Your task to perform on an android device: change the clock display to show seconds Image 0: 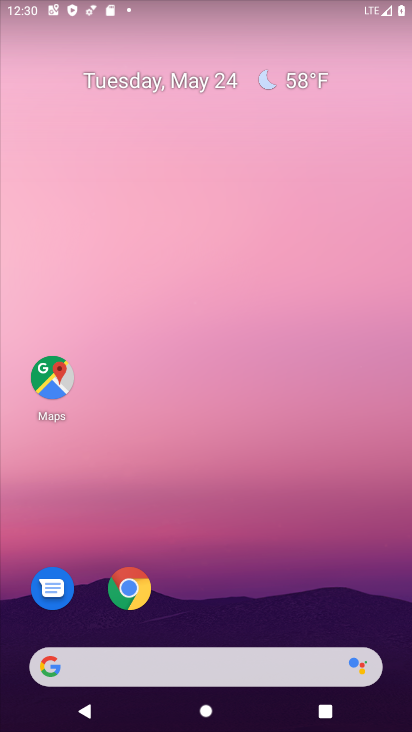
Step 0: drag from (233, 607) to (194, 35)
Your task to perform on an android device: change the clock display to show seconds Image 1: 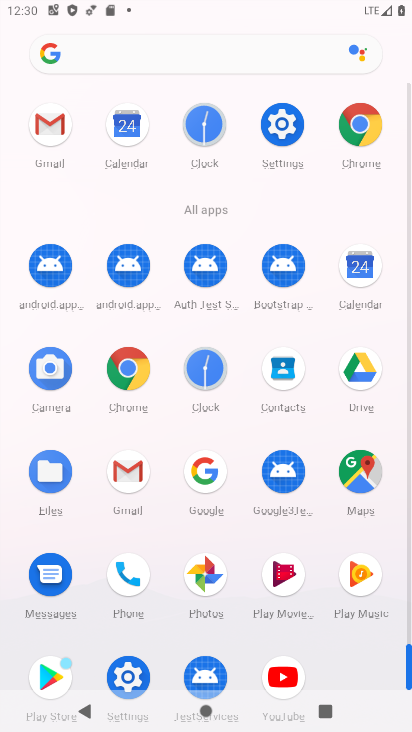
Step 1: click (198, 375)
Your task to perform on an android device: change the clock display to show seconds Image 2: 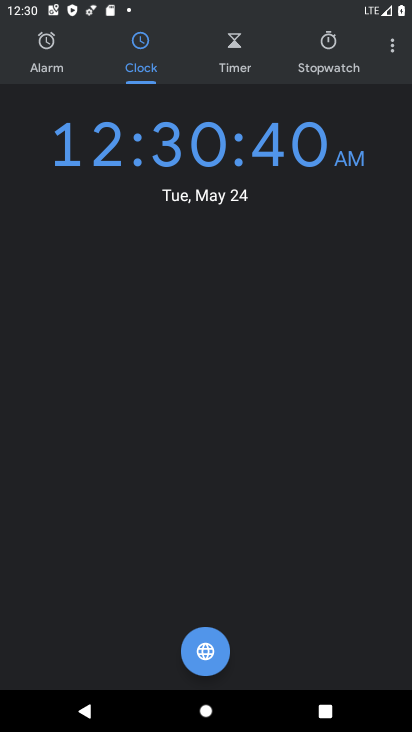
Step 2: click (397, 54)
Your task to perform on an android device: change the clock display to show seconds Image 3: 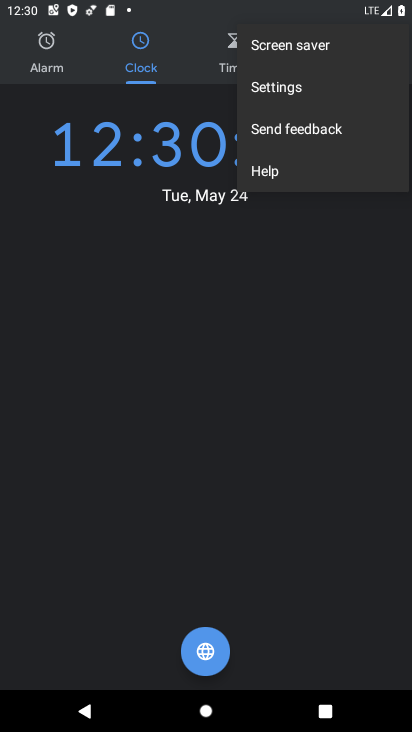
Step 3: click (343, 106)
Your task to perform on an android device: change the clock display to show seconds Image 4: 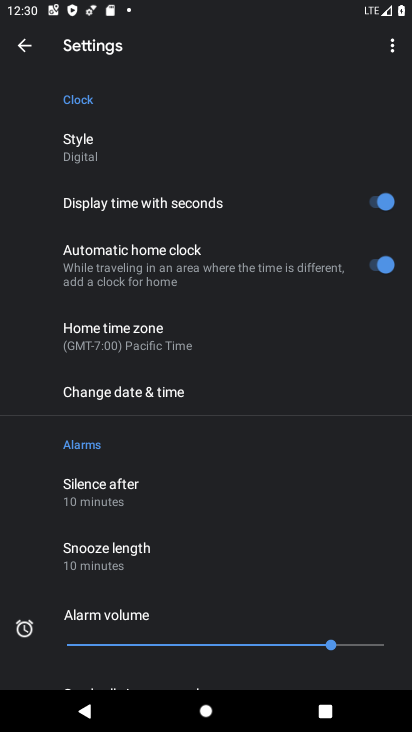
Step 4: press back button
Your task to perform on an android device: change the clock display to show seconds Image 5: 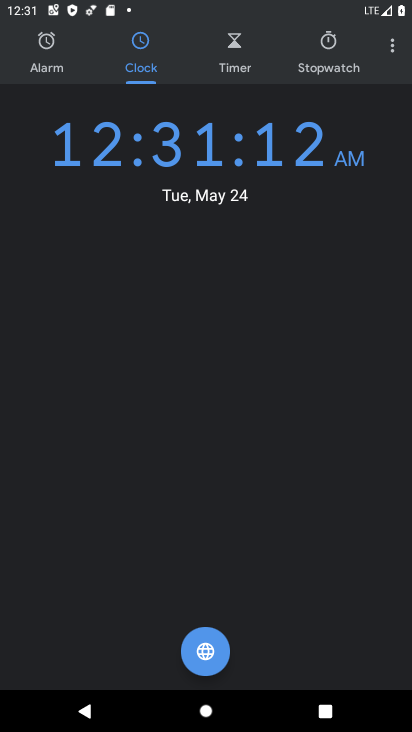
Step 5: click (402, 50)
Your task to perform on an android device: change the clock display to show seconds Image 6: 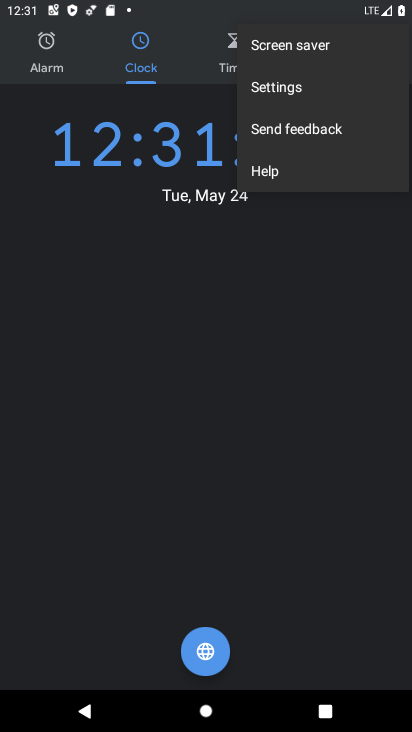
Step 6: click (339, 99)
Your task to perform on an android device: change the clock display to show seconds Image 7: 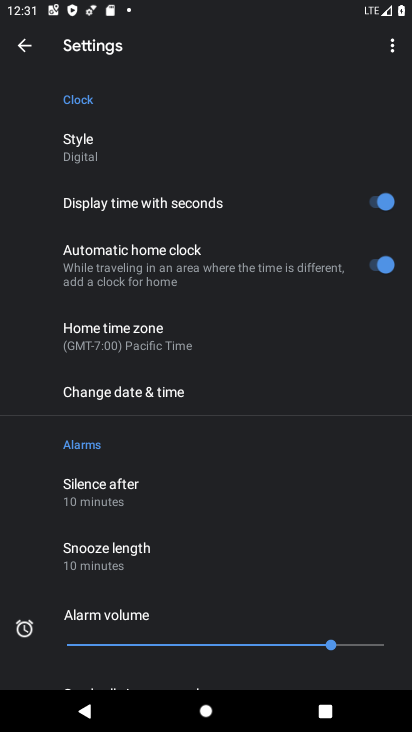
Step 7: task complete